Your task to perform on an android device: turn pop-ups on in chrome Image 0: 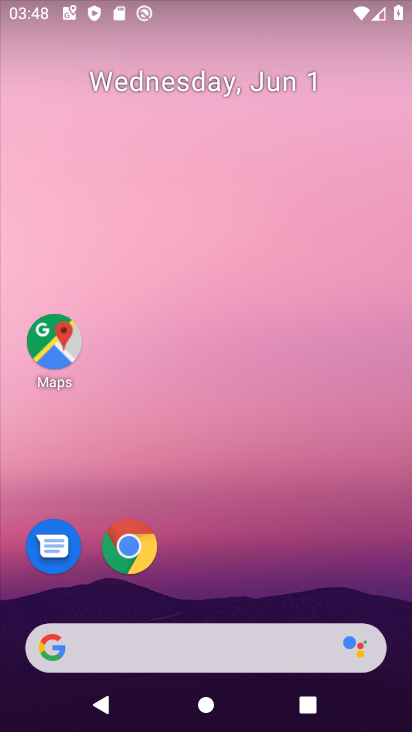
Step 0: click (122, 548)
Your task to perform on an android device: turn pop-ups on in chrome Image 1: 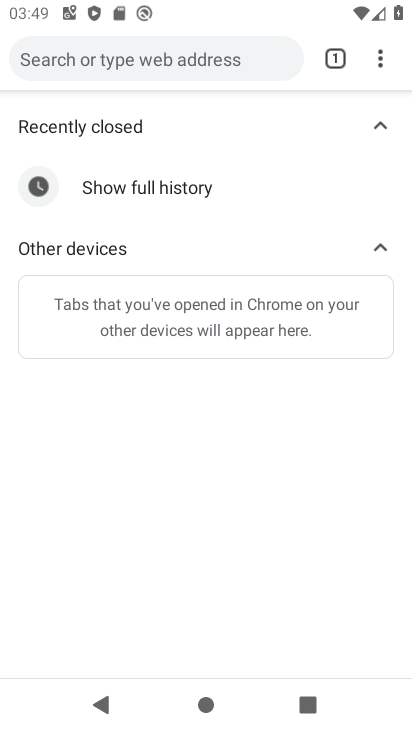
Step 1: click (381, 67)
Your task to perform on an android device: turn pop-ups on in chrome Image 2: 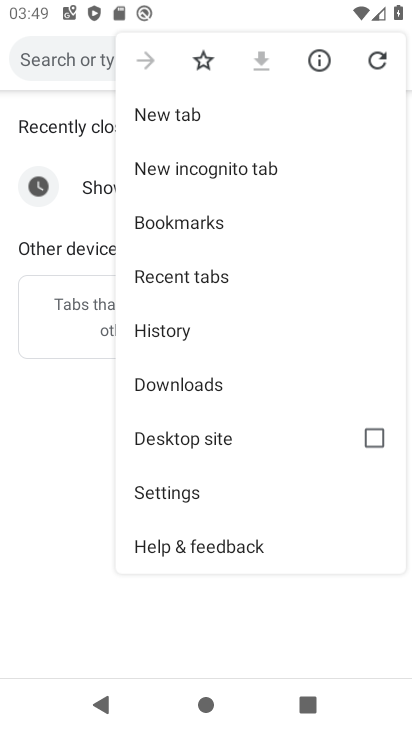
Step 2: click (232, 487)
Your task to perform on an android device: turn pop-ups on in chrome Image 3: 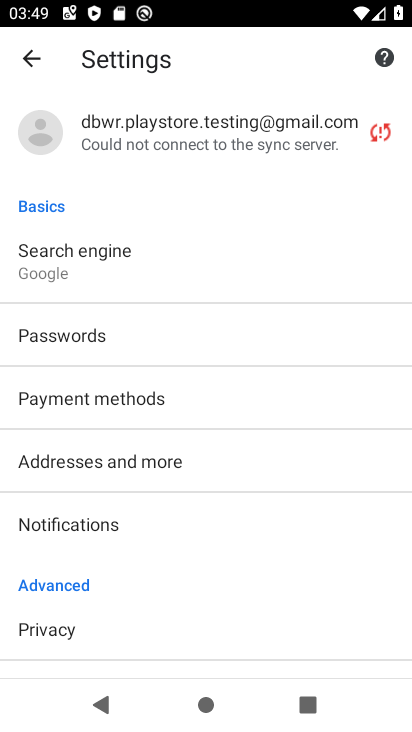
Step 3: drag from (161, 576) to (155, 269)
Your task to perform on an android device: turn pop-ups on in chrome Image 4: 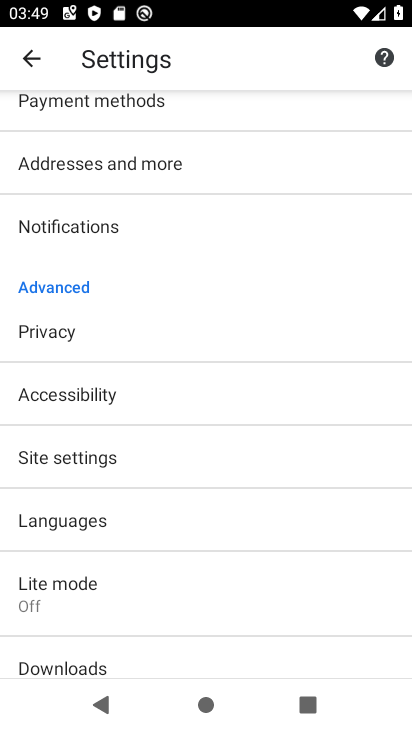
Step 4: click (81, 450)
Your task to perform on an android device: turn pop-ups on in chrome Image 5: 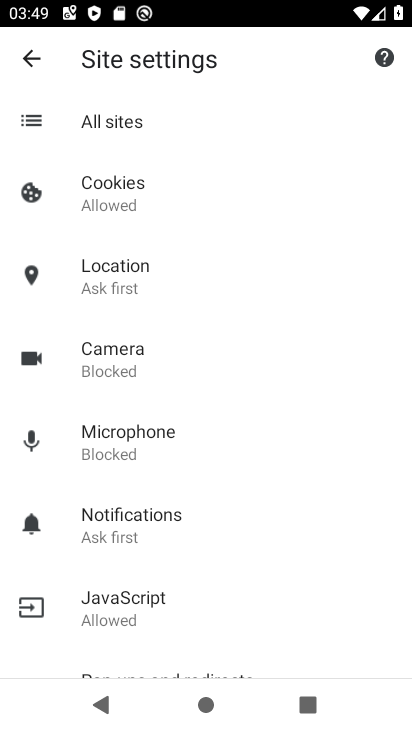
Step 5: drag from (204, 601) to (219, 318)
Your task to perform on an android device: turn pop-ups on in chrome Image 6: 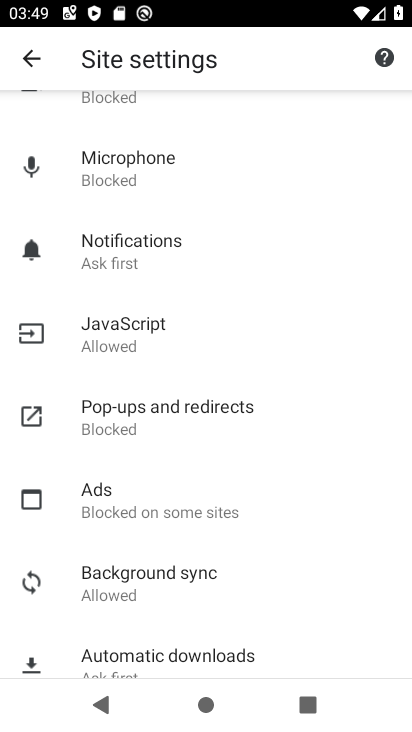
Step 6: click (263, 399)
Your task to perform on an android device: turn pop-ups on in chrome Image 7: 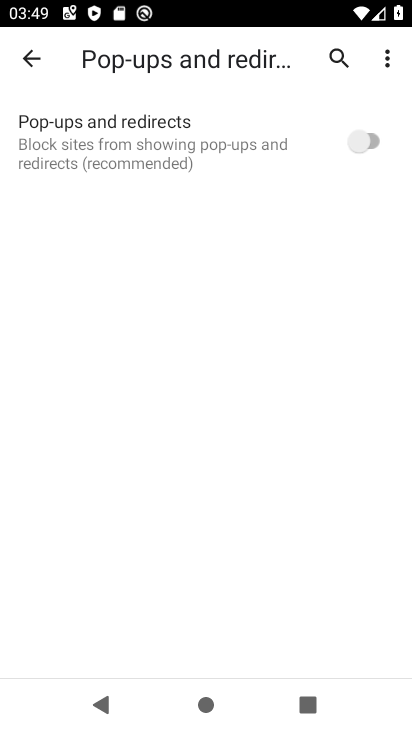
Step 7: click (365, 149)
Your task to perform on an android device: turn pop-ups on in chrome Image 8: 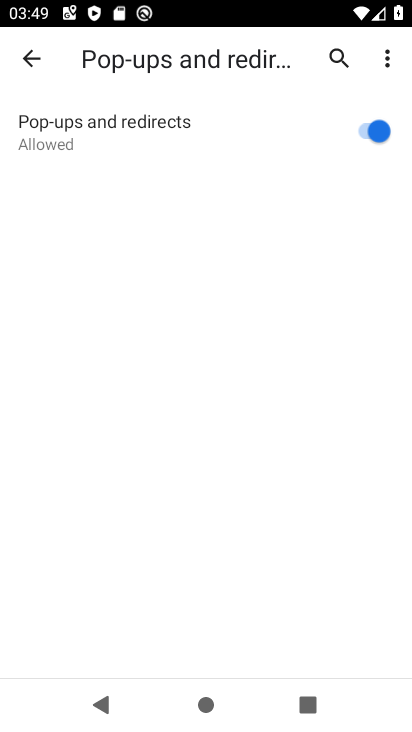
Step 8: task complete